Your task to perform on an android device: Open Chrome and go to settings Image 0: 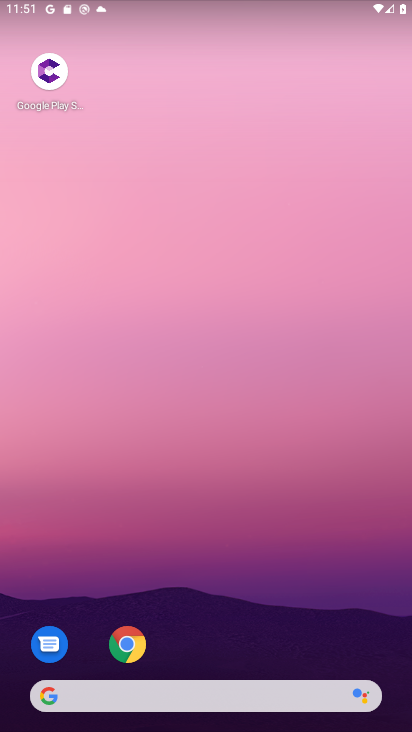
Step 0: click (129, 648)
Your task to perform on an android device: Open Chrome and go to settings Image 1: 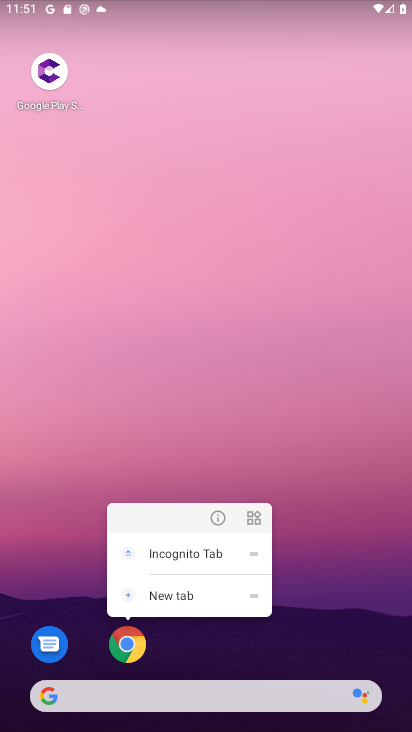
Step 1: click (129, 648)
Your task to perform on an android device: Open Chrome and go to settings Image 2: 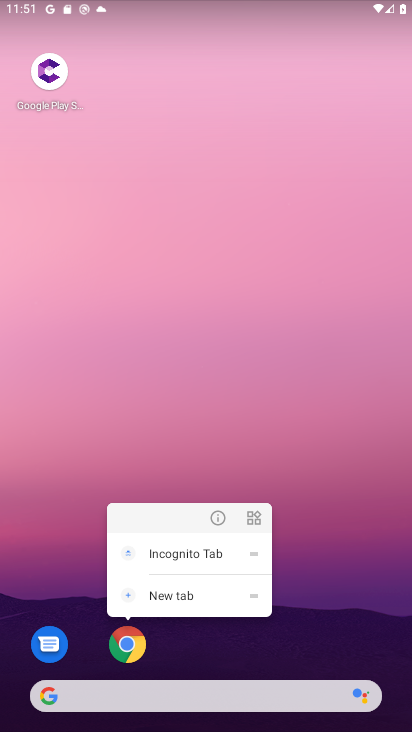
Step 2: click (133, 652)
Your task to perform on an android device: Open Chrome and go to settings Image 3: 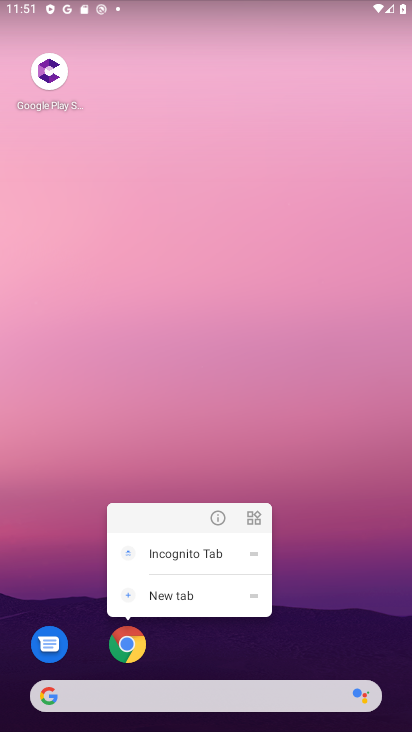
Step 3: click (133, 652)
Your task to perform on an android device: Open Chrome and go to settings Image 4: 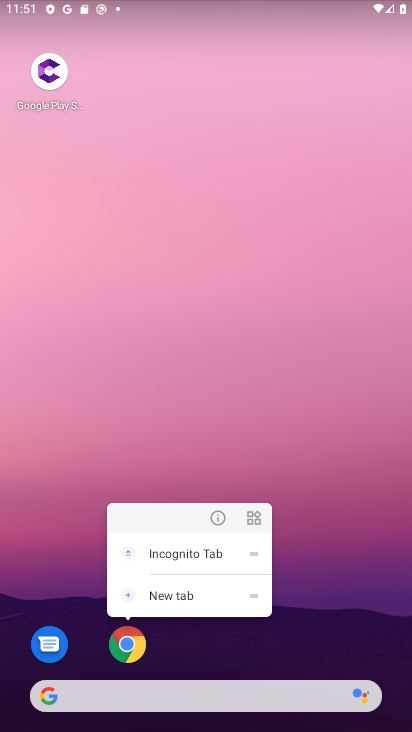
Step 4: click (133, 652)
Your task to perform on an android device: Open Chrome and go to settings Image 5: 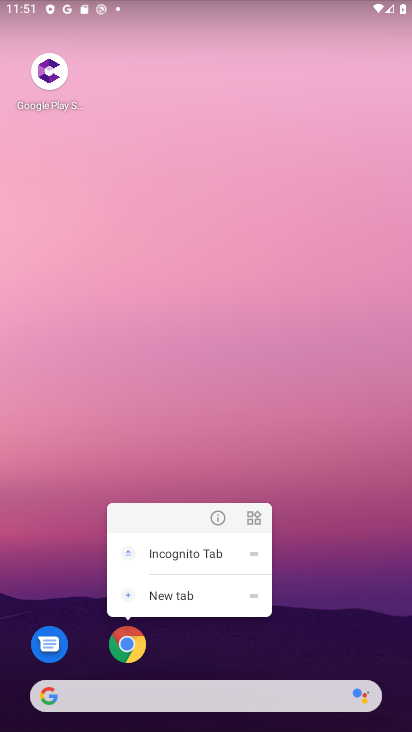
Step 5: click (130, 641)
Your task to perform on an android device: Open Chrome and go to settings Image 6: 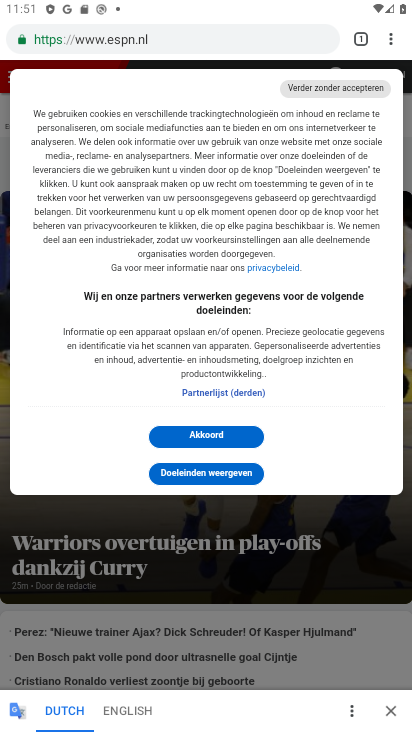
Step 6: click (388, 41)
Your task to perform on an android device: Open Chrome and go to settings Image 7: 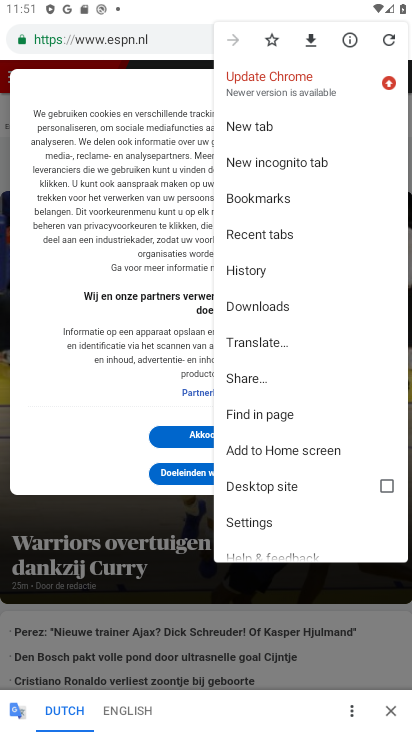
Step 7: click (257, 521)
Your task to perform on an android device: Open Chrome and go to settings Image 8: 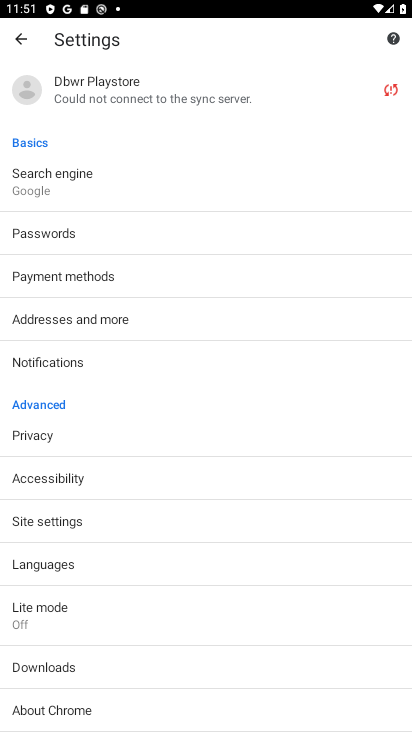
Step 8: task complete